Your task to perform on an android device: turn on wifi Image 0: 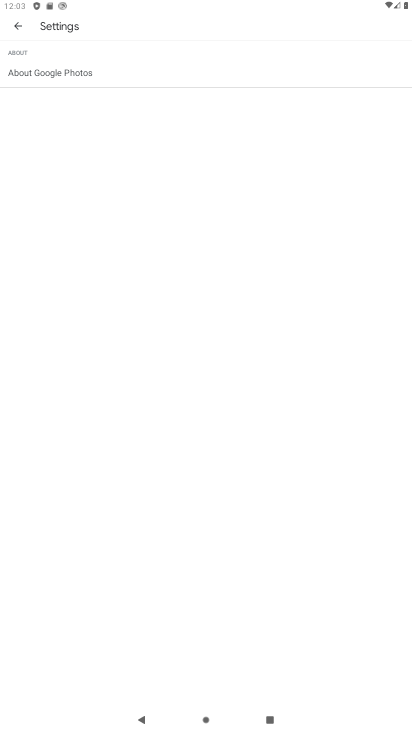
Step 0: task complete